Your task to perform on an android device: Is it going to rain this weekend? Image 0: 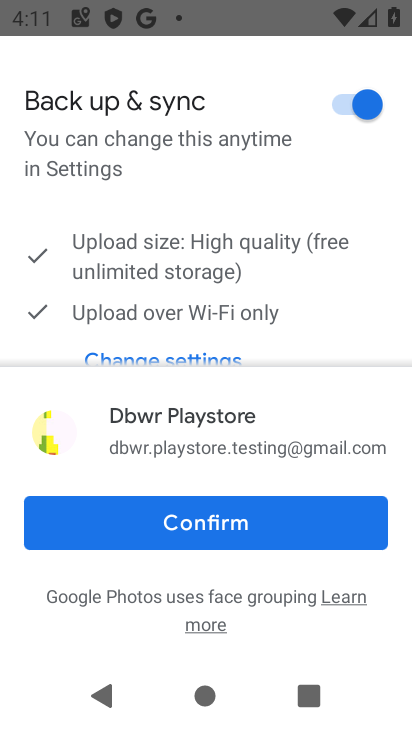
Step 0: press home button
Your task to perform on an android device: Is it going to rain this weekend? Image 1: 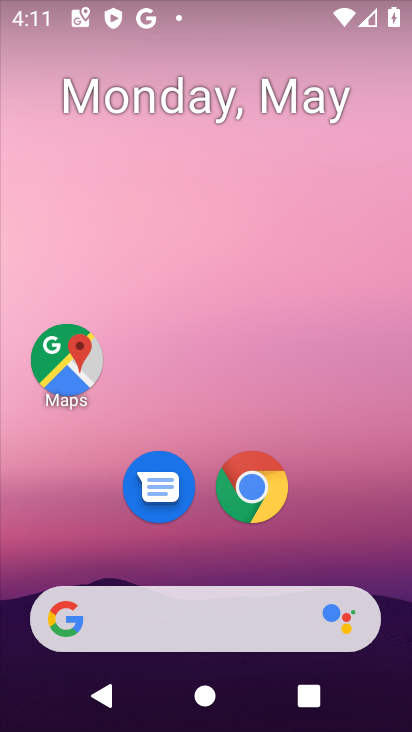
Step 1: click (132, 618)
Your task to perform on an android device: Is it going to rain this weekend? Image 2: 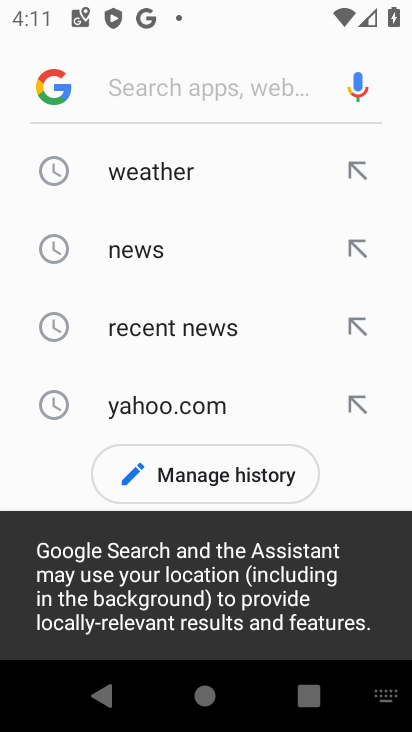
Step 2: click (150, 183)
Your task to perform on an android device: Is it going to rain this weekend? Image 3: 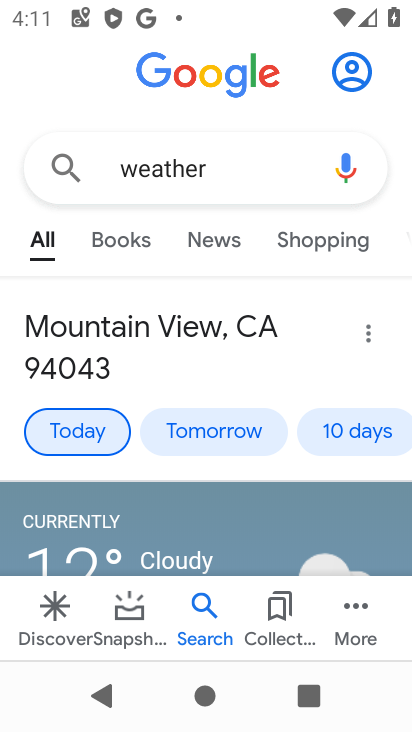
Step 3: click (363, 420)
Your task to perform on an android device: Is it going to rain this weekend? Image 4: 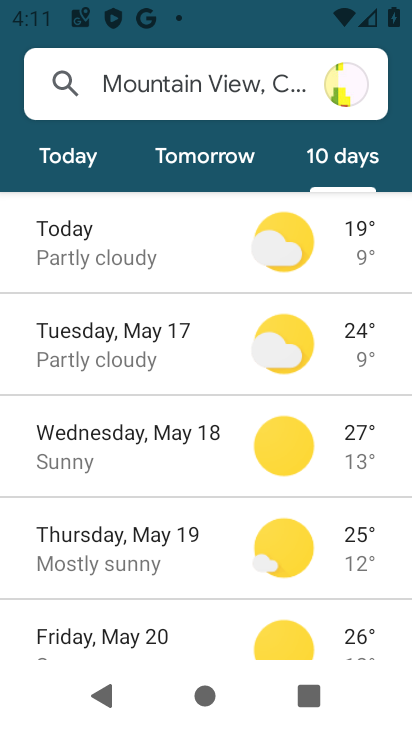
Step 4: task complete